Your task to perform on an android device: Open notification settings Image 0: 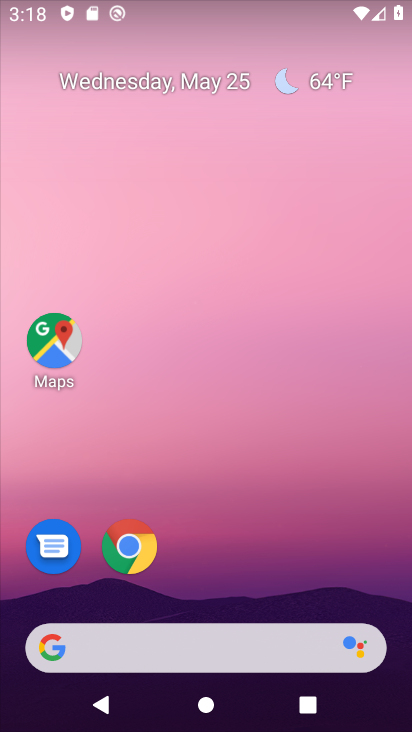
Step 0: drag from (232, 568) to (179, 265)
Your task to perform on an android device: Open notification settings Image 1: 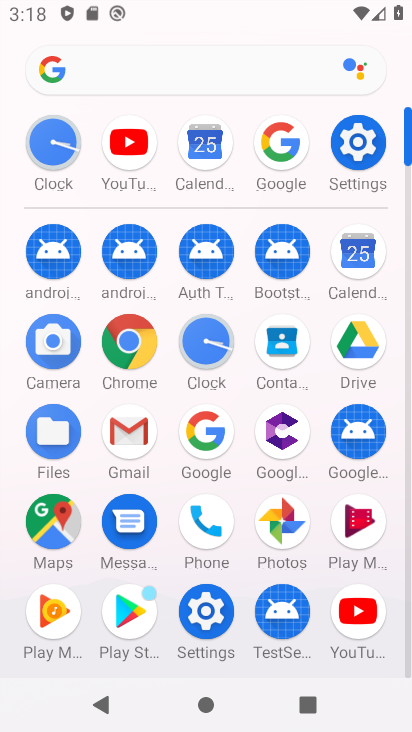
Step 1: click (361, 142)
Your task to perform on an android device: Open notification settings Image 2: 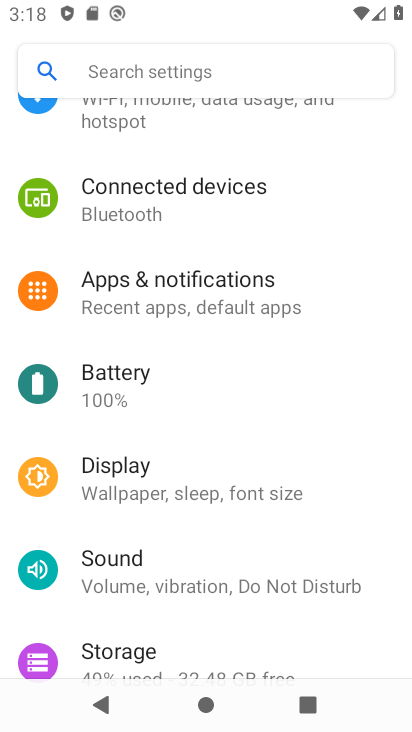
Step 2: click (179, 304)
Your task to perform on an android device: Open notification settings Image 3: 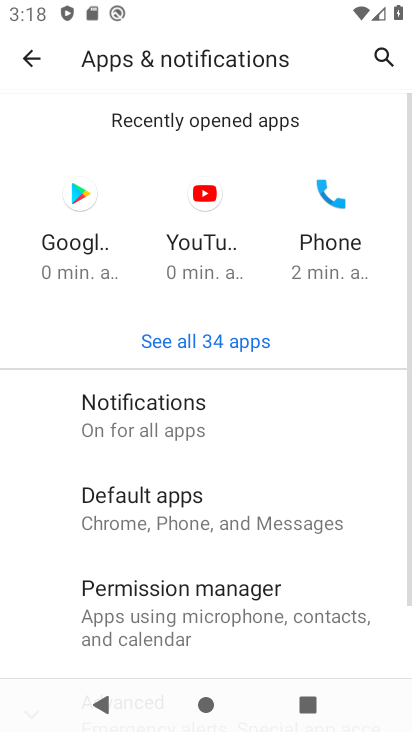
Step 3: click (162, 421)
Your task to perform on an android device: Open notification settings Image 4: 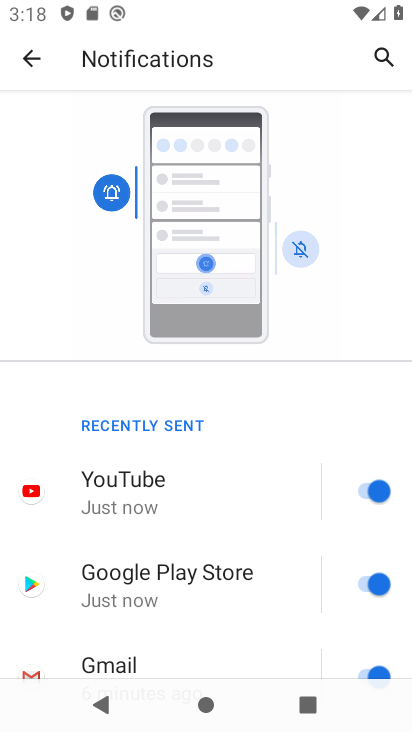
Step 4: drag from (221, 639) to (147, 119)
Your task to perform on an android device: Open notification settings Image 5: 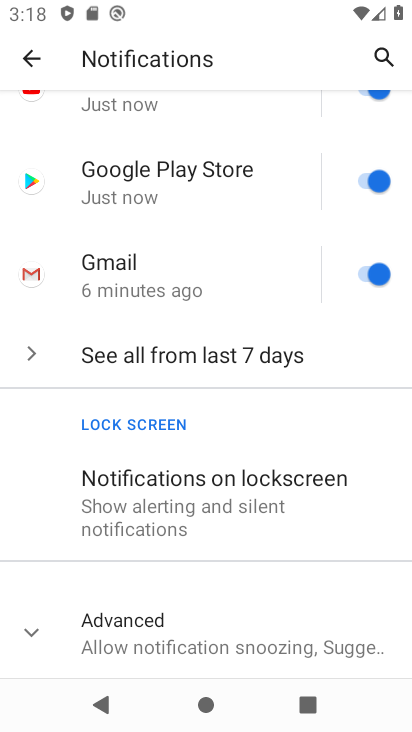
Step 5: click (96, 638)
Your task to perform on an android device: Open notification settings Image 6: 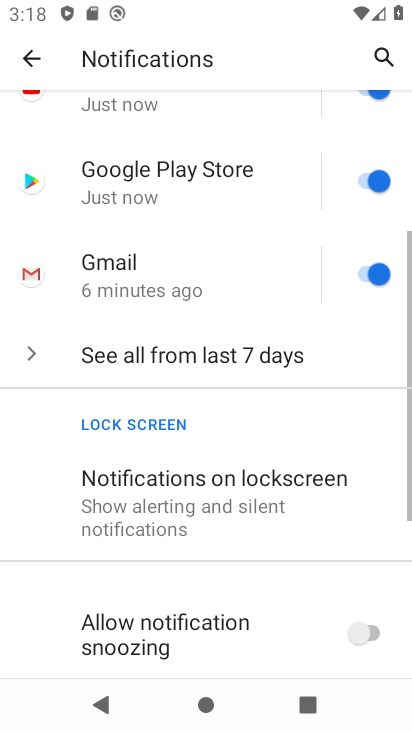
Step 6: task complete